Your task to perform on an android device: snooze an email in the gmail app Image 0: 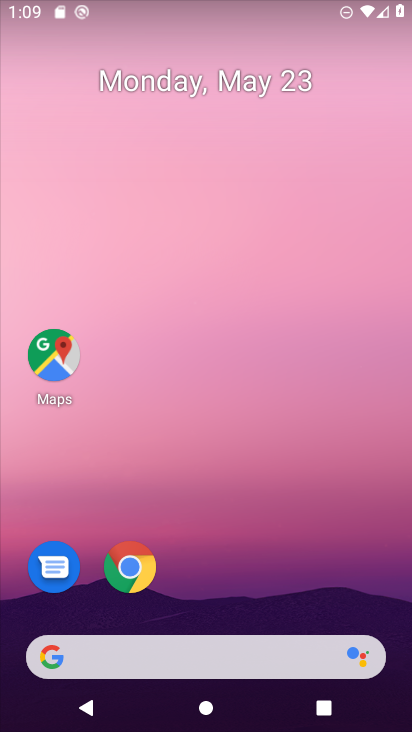
Step 0: drag from (231, 581) to (337, 90)
Your task to perform on an android device: snooze an email in the gmail app Image 1: 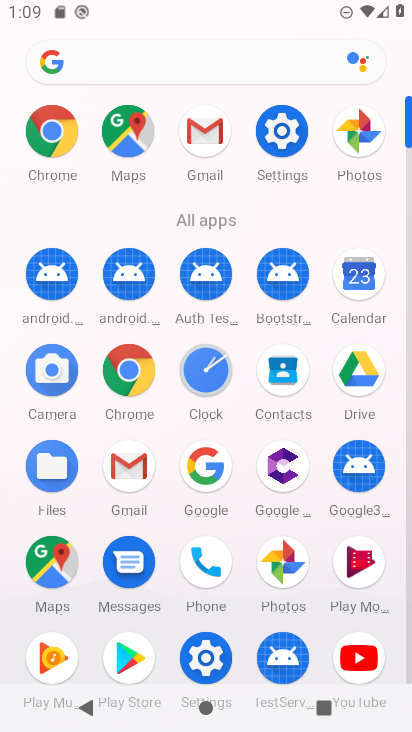
Step 1: click (107, 433)
Your task to perform on an android device: snooze an email in the gmail app Image 2: 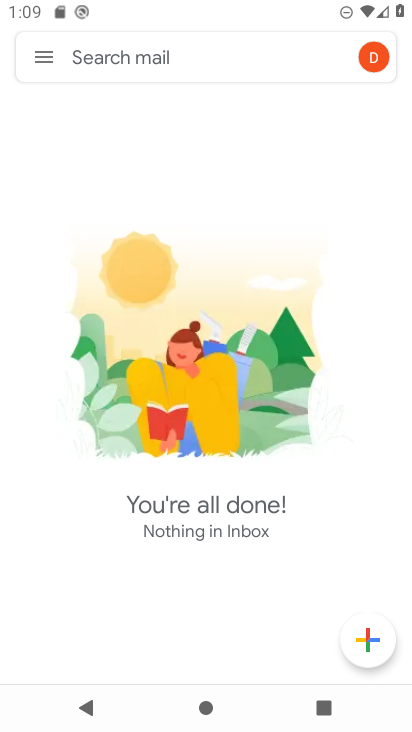
Step 2: click (30, 49)
Your task to perform on an android device: snooze an email in the gmail app Image 3: 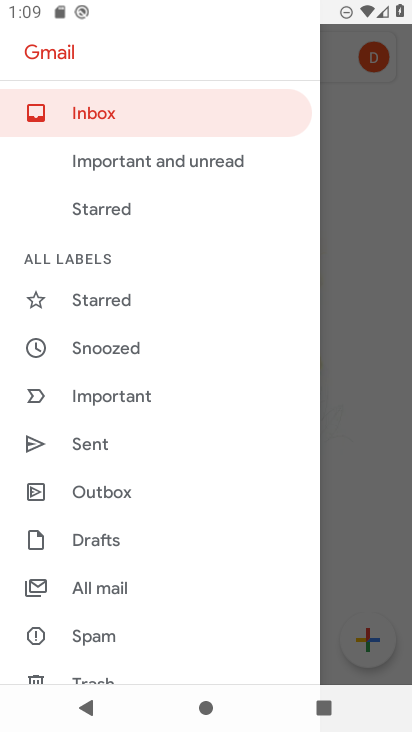
Step 3: task complete